Your task to perform on an android device: turn on translation in the chrome app Image 0: 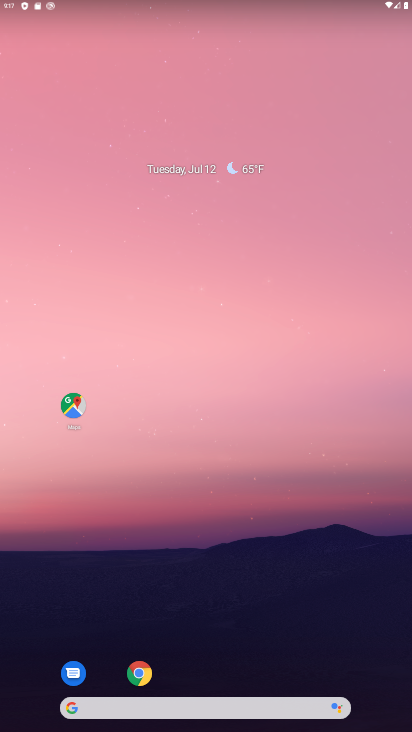
Step 0: drag from (364, 590) to (367, 111)
Your task to perform on an android device: turn on translation in the chrome app Image 1: 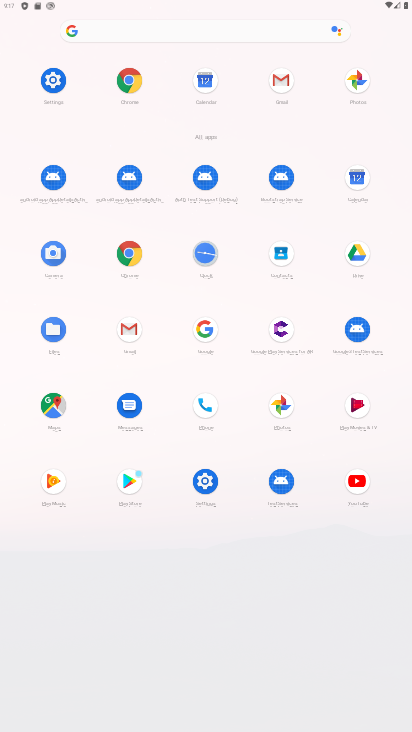
Step 1: click (127, 250)
Your task to perform on an android device: turn on translation in the chrome app Image 2: 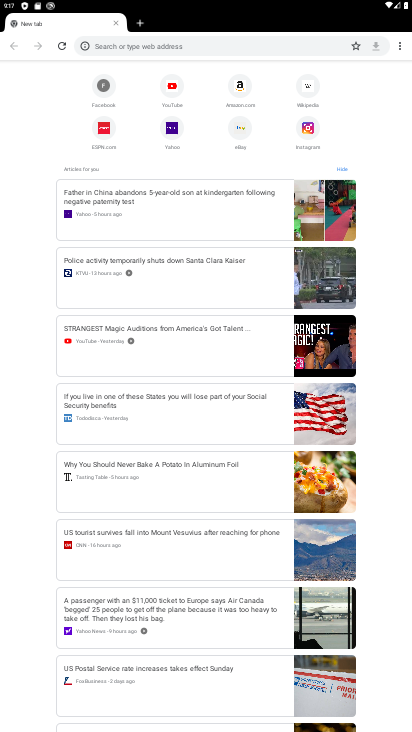
Step 2: click (399, 49)
Your task to perform on an android device: turn on translation in the chrome app Image 3: 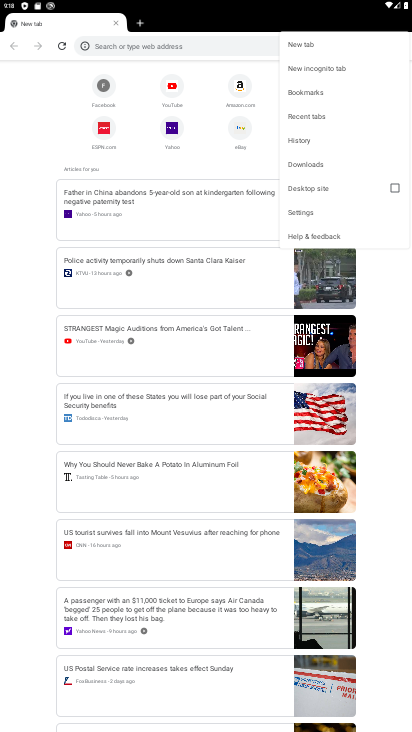
Step 3: click (317, 210)
Your task to perform on an android device: turn on translation in the chrome app Image 4: 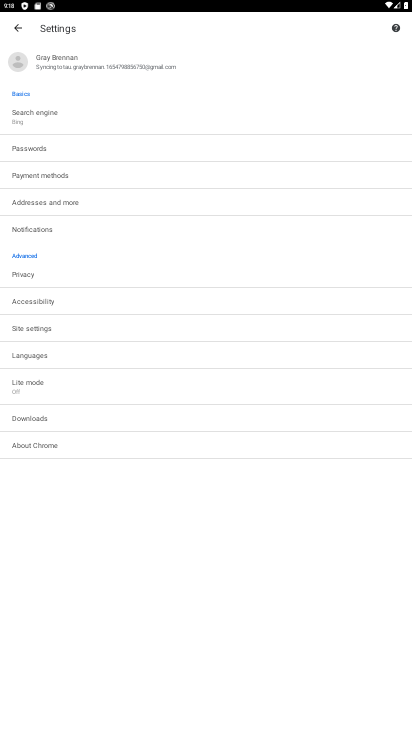
Step 4: click (122, 351)
Your task to perform on an android device: turn on translation in the chrome app Image 5: 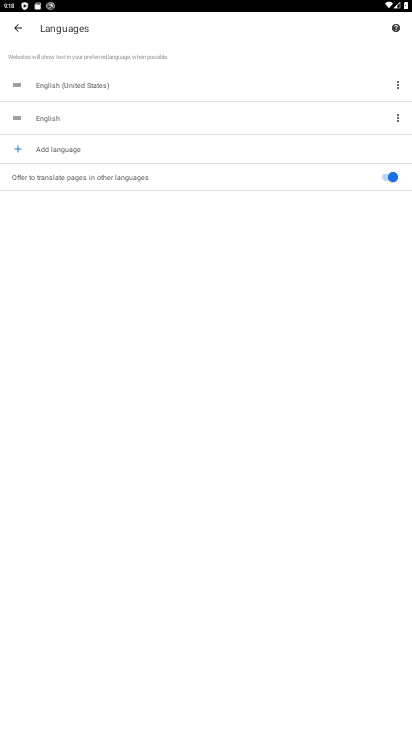
Step 5: task complete